Your task to perform on an android device: turn off wifi Image 0: 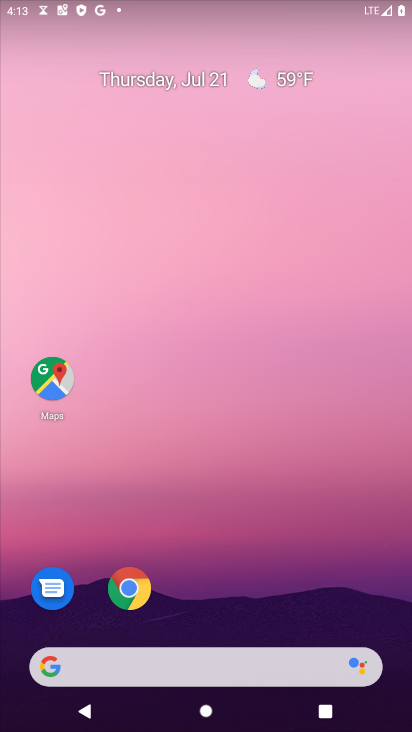
Step 0: drag from (226, 727) to (226, 155)
Your task to perform on an android device: turn off wifi Image 1: 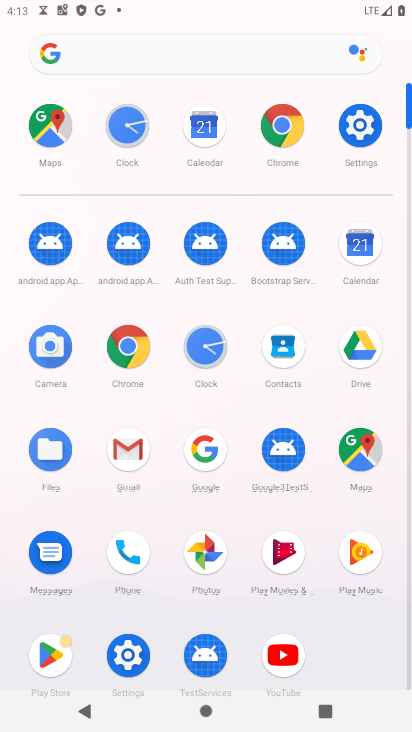
Step 1: click (360, 126)
Your task to perform on an android device: turn off wifi Image 2: 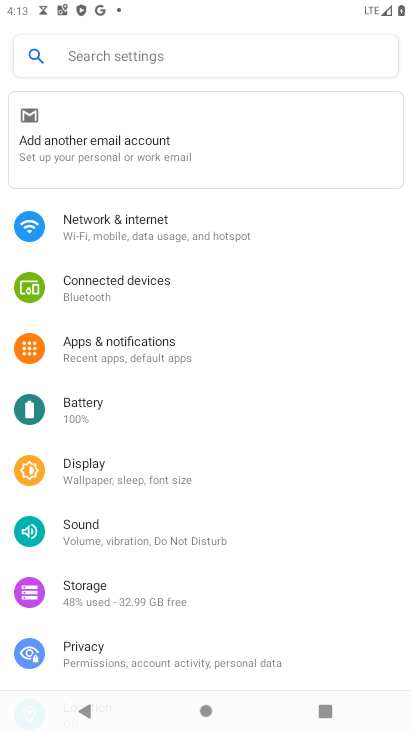
Step 2: click (130, 236)
Your task to perform on an android device: turn off wifi Image 3: 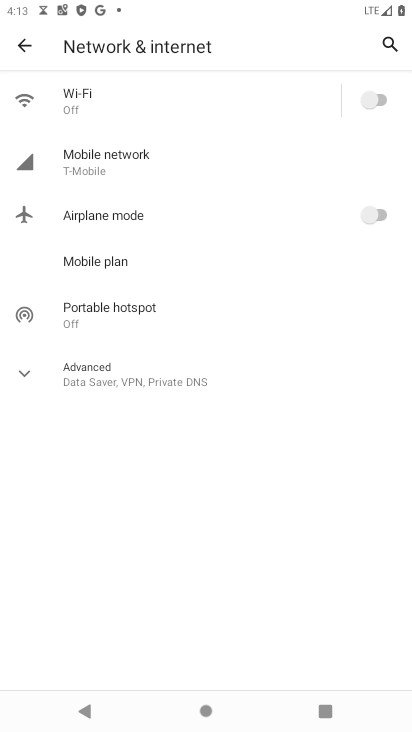
Step 3: task complete